Your task to perform on an android device: toggle improve location accuracy Image 0: 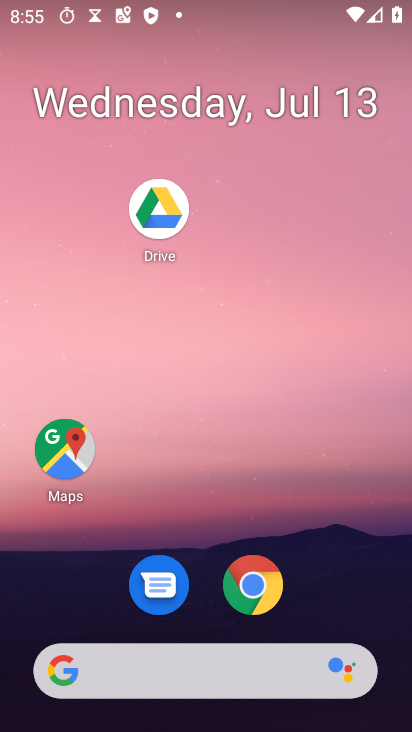
Step 0: drag from (261, 663) to (306, 156)
Your task to perform on an android device: toggle improve location accuracy Image 1: 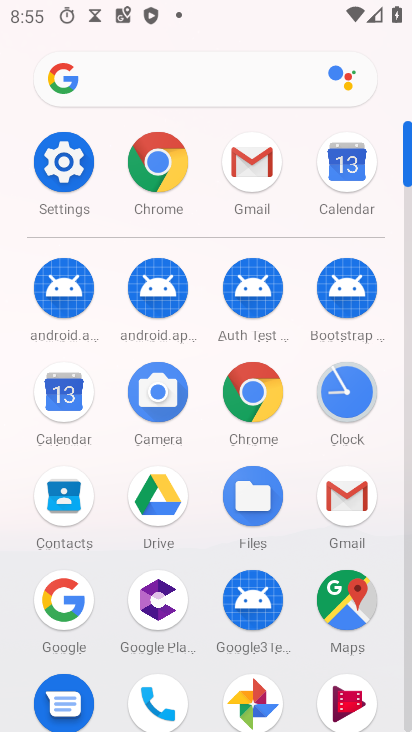
Step 1: click (52, 180)
Your task to perform on an android device: toggle improve location accuracy Image 2: 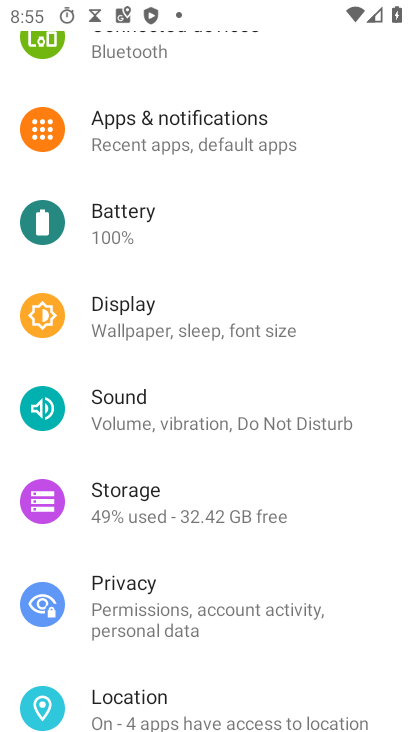
Step 2: drag from (240, 633) to (366, 207)
Your task to perform on an android device: toggle improve location accuracy Image 3: 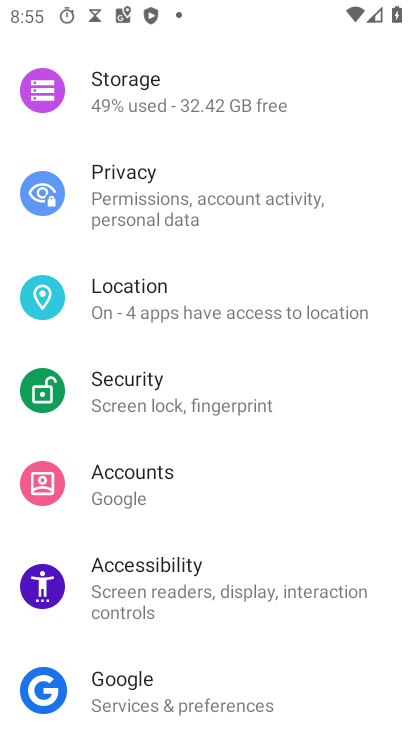
Step 3: click (164, 300)
Your task to perform on an android device: toggle improve location accuracy Image 4: 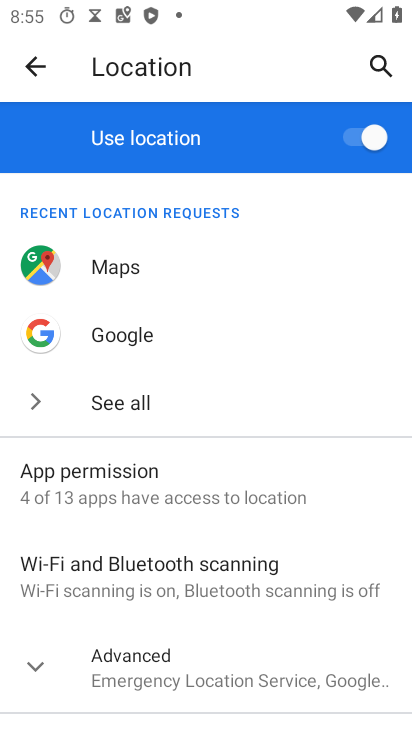
Step 4: click (181, 660)
Your task to perform on an android device: toggle improve location accuracy Image 5: 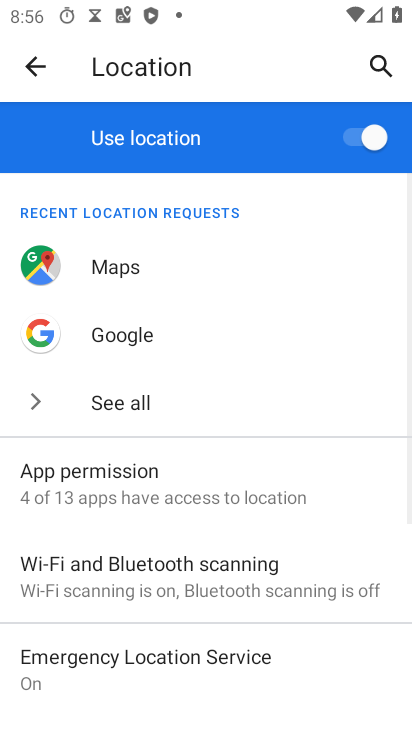
Step 5: drag from (235, 594) to (345, 156)
Your task to perform on an android device: toggle improve location accuracy Image 6: 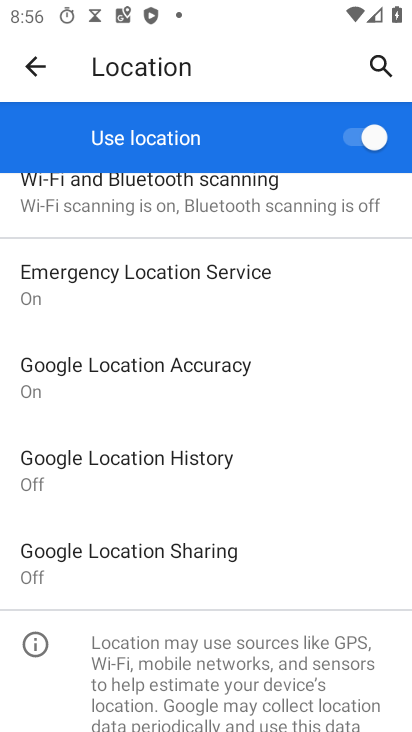
Step 6: click (225, 367)
Your task to perform on an android device: toggle improve location accuracy Image 7: 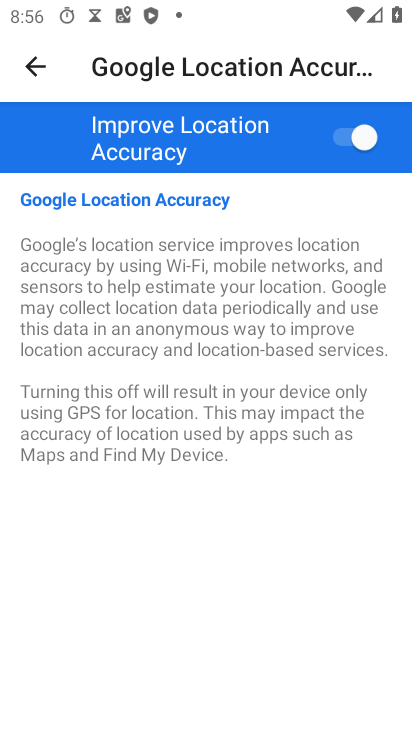
Step 7: click (349, 139)
Your task to perform on an android device: toggle improve location accuracy Image 8: 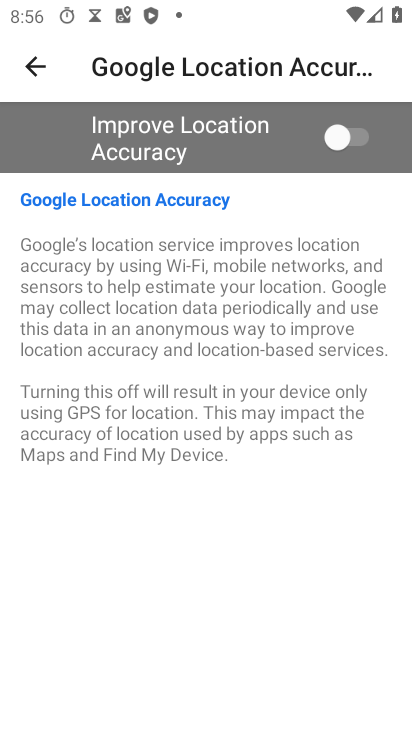
Step 8: task complete